Your task to perform on an android device: Search for razer huntsman on costco.com, select the first entry, and add it to the cart. Image 0: 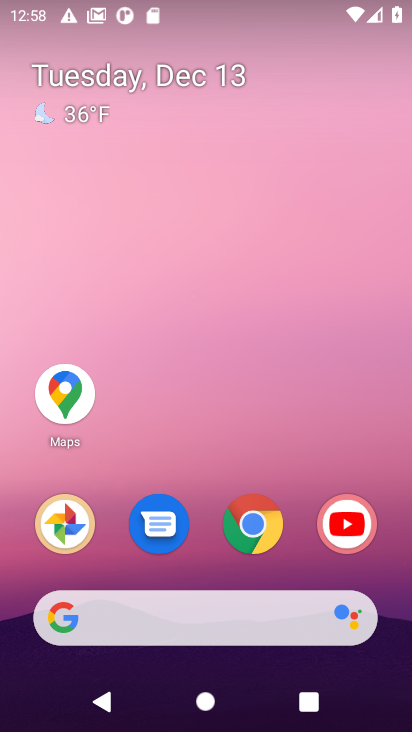
Step 0: click (268, 522)
Your task to perform on an android device: Search for razer huntsman on costco.com, select the first entry, and add it to the cart. Image 1: 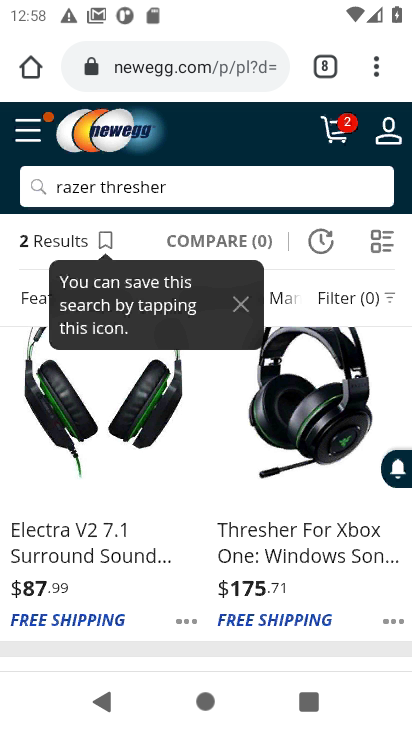
Step 1: click (148, 77)
Your task to perform on an android device: Search for razer huntsman on costco.com, select the first entry, and add it to the cart. Image 2: 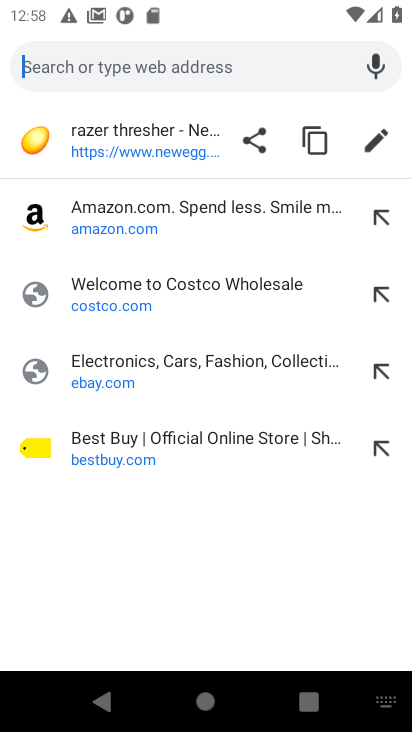
Step 2: click (106, 296)
Your task to perform on an android device: Search for razer huntsman on costco.com, select the first entry, and add it to the cart. Image 3: 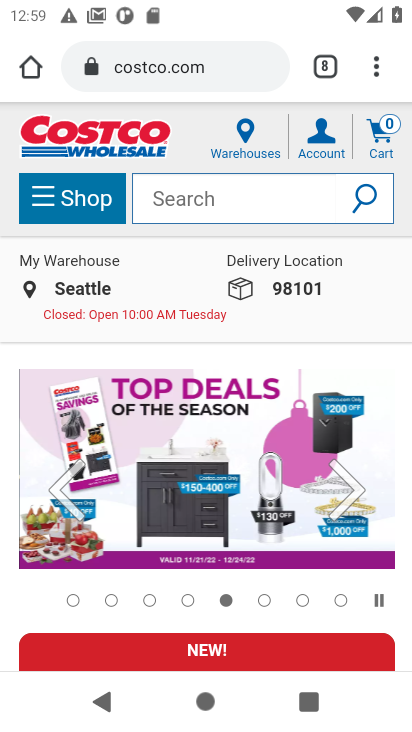
Step 3: click (179, 193)
Your task to perform on an android device: Search for razer huntsman on costco.com, select the first entry, and add it to the cart. Image 4: 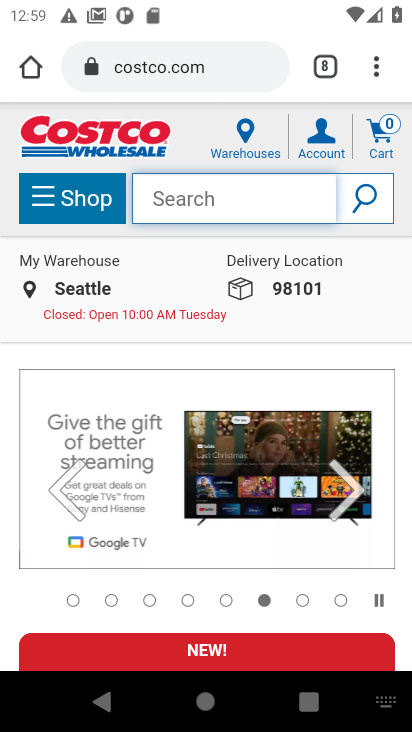
Step 4: type "razer huntsman"
Your task to perform on an android device: Search for razer huntsman on costco.com, select the first entry, and add it to the cart. Image 5: 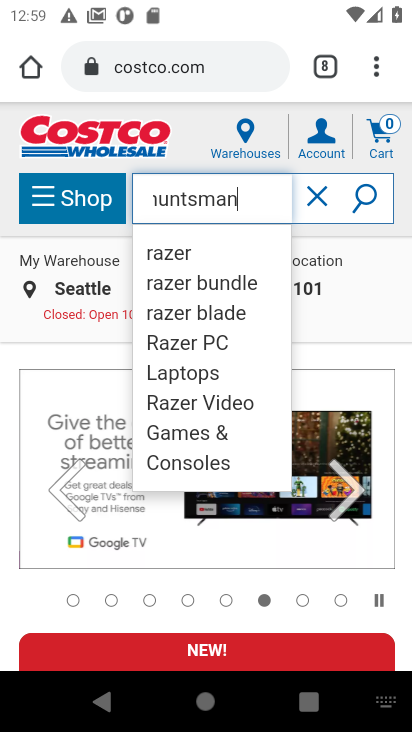
Step 5: click (365, 201)
Your task to perform on an android device: Search for razer huntsman on costco.com, select the first entry, and add it to the cart. Image 6: 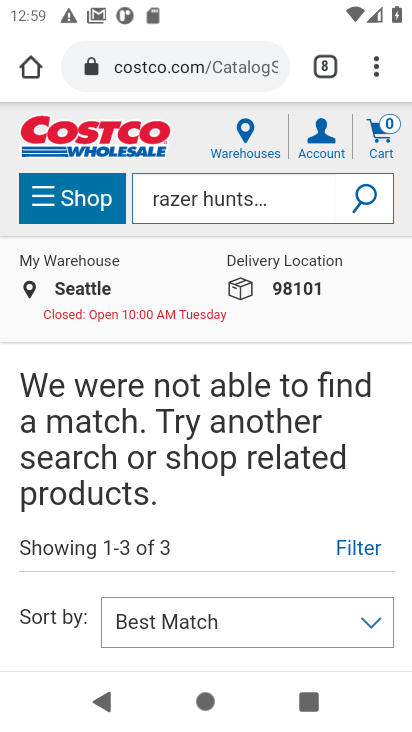
Step 6: task complete